Your task to perform on an android device: change the clock display to show seconds Image 0: 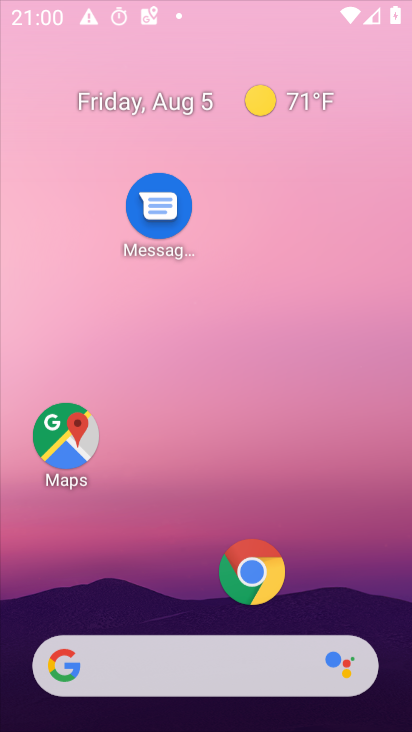
Step 0: press home button
Your task to perform on an android device: change the clock display to show seconds Image 1: 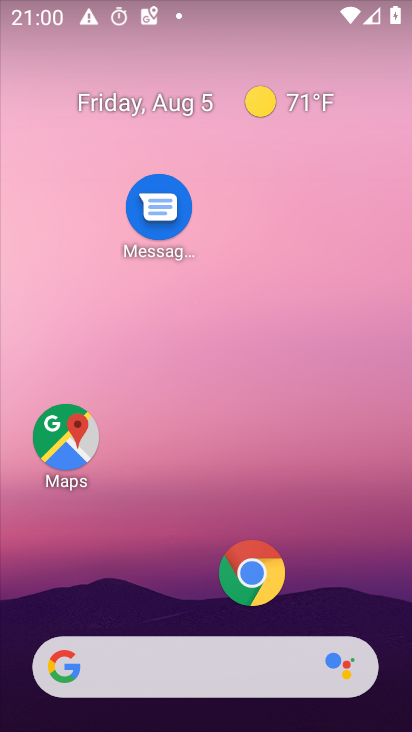
Step 1: drag from (181, 602) to (233, 127)
Your task to perform on an android device: change the clock display to show seconds Image 2: 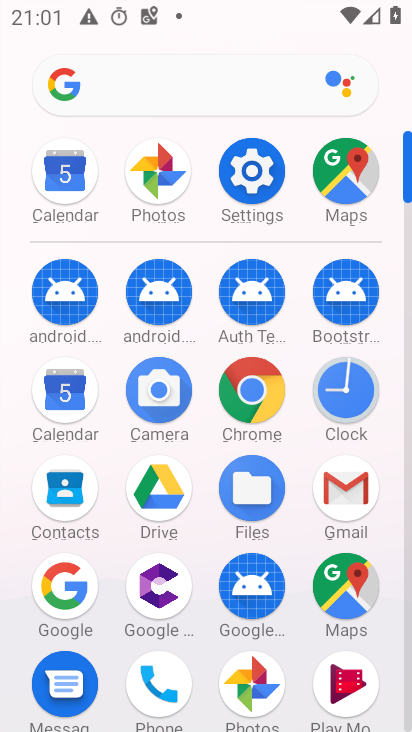
Step 2: click (340, 382)
Your task to perform on an android device: change the clock display to show seconds Image 3: 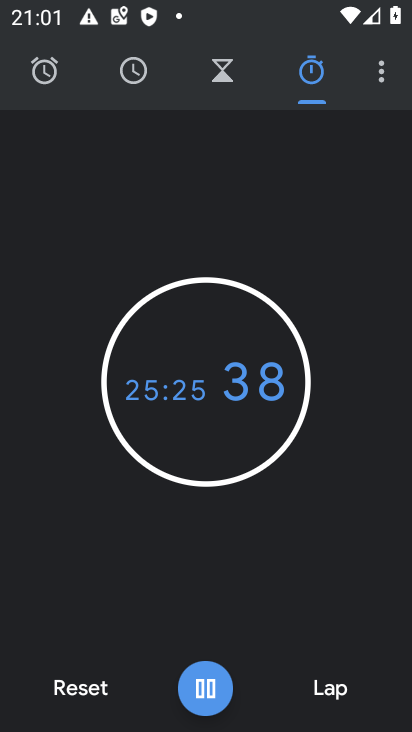
Step 3: click (382, 66)
Your task to perform on an android device: change the clock display to show seconds Image 4: 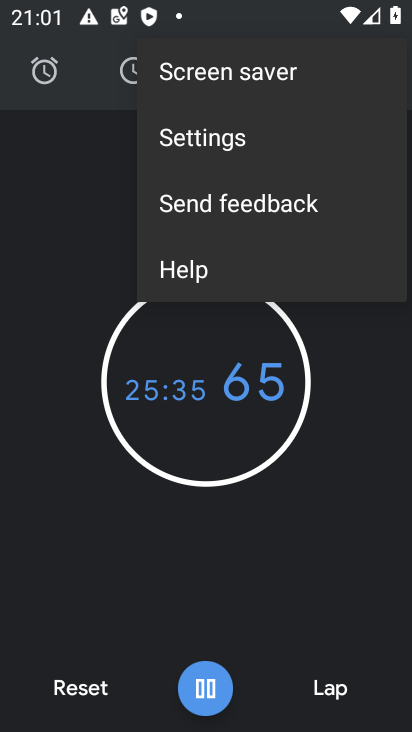
Step 4: click (253, 134)
Your task to perform on an android device: change the clock display to show seconds Image 5: 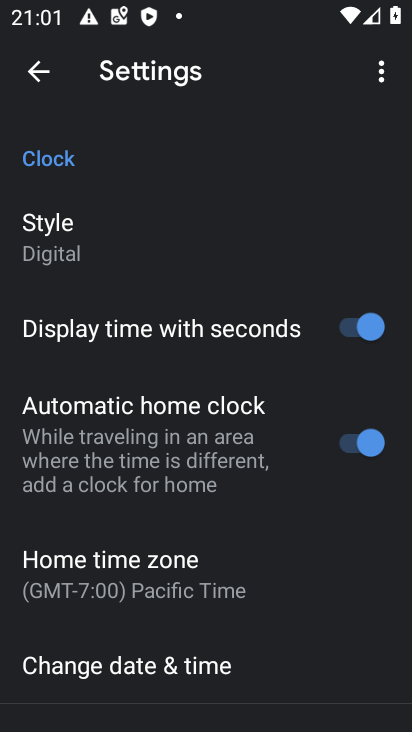
Step 5: click (351, 322)
Your task to perform on an android device: change the clock display to show seconds Image 6: 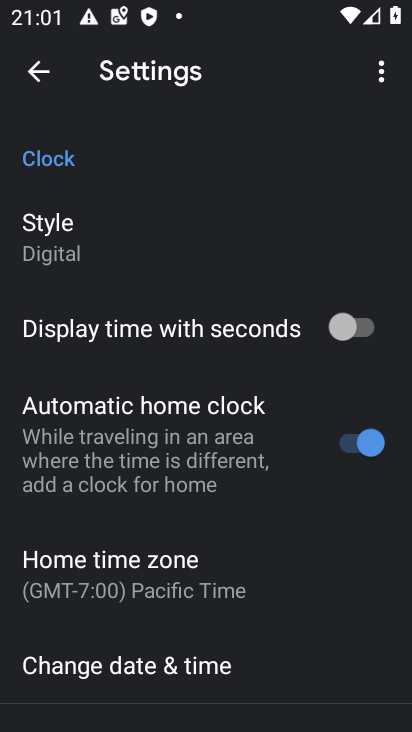
Step 6: task complete